Your task to perform on an android device: Open Reddit.com Image 0: 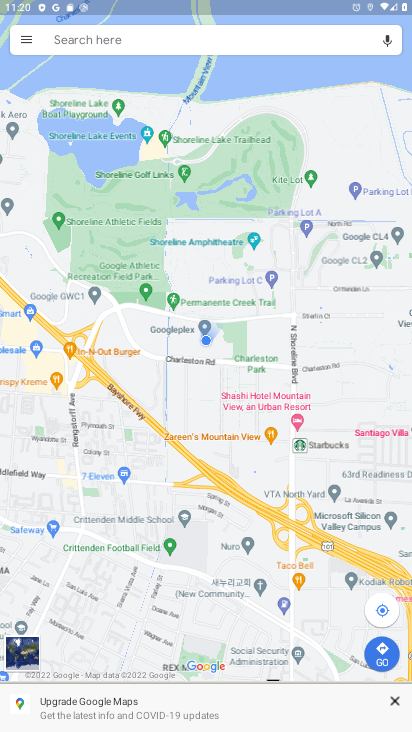
Step 0: press home button
Your task to perform on an android device: Open Reddit.com Image 1: 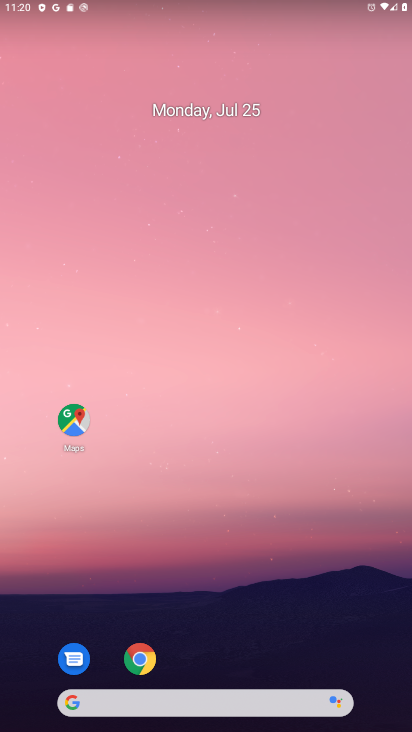
Step 1: click (138, 661)
Your task to perform on an android device: Open Reddit.com Image 2: 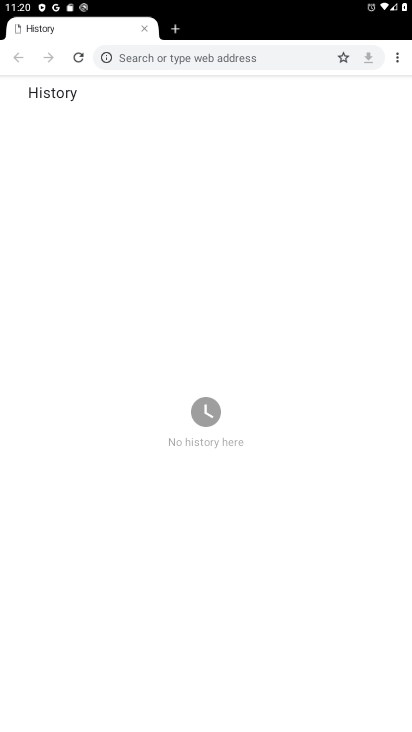
Step 2: click (398, 56)
Your task to perform on an android device: Open Reddit.com Image 3: 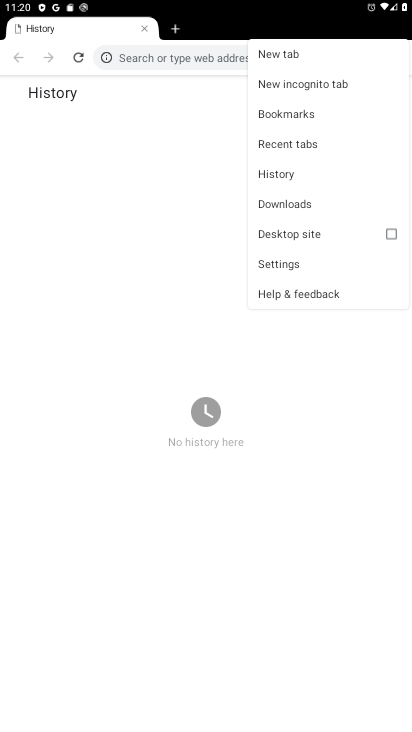
Step 3: click (287, 48)
Your task to perform on an android device: Open Reddit.com Image 4: 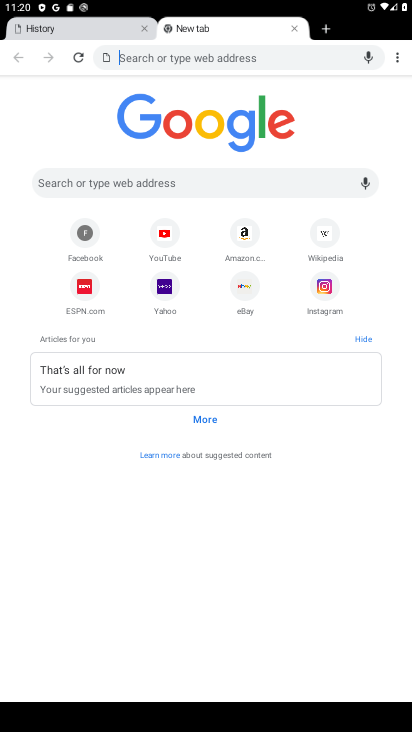
Step 4: click (170, 180)
Your task to perform on an android device: Open Reddit.com Image 5: 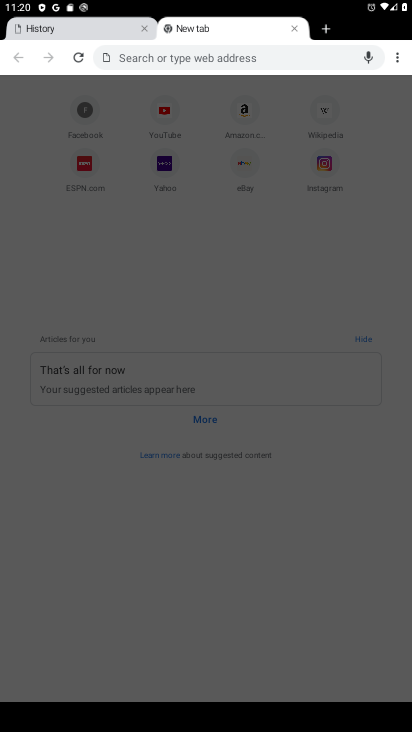
Step 5: type "reddit.com"
Your task to perform on an android device: Open Reddit.com Image 6: 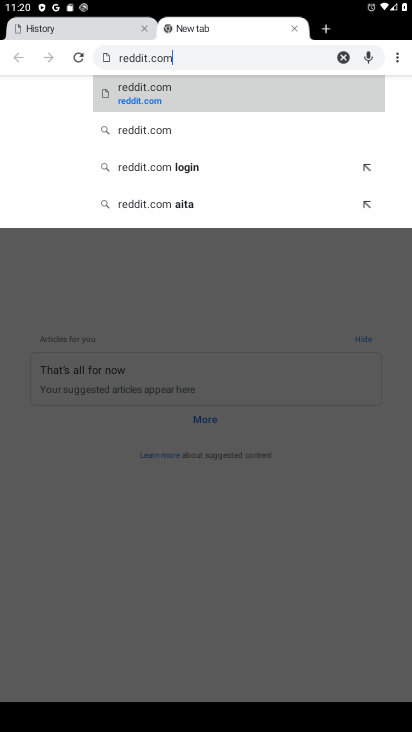
Step 6: click (140, 87)
Your task to perform on an android device: Open Reddit.com Image 7: 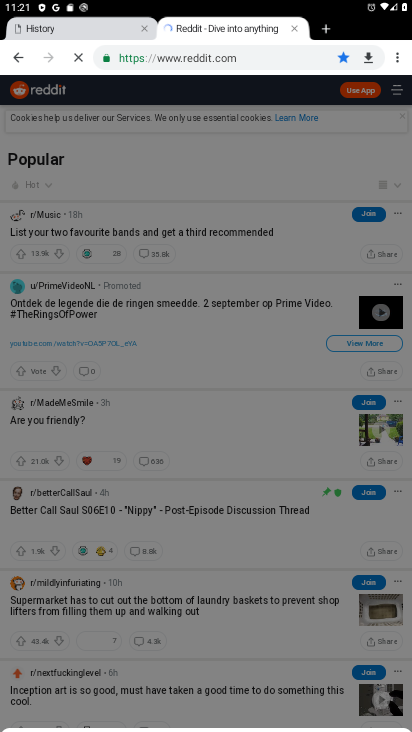
Step 7: task complete